Your task to perform on an android device: Open the calendar app, open the side menu, and click the "Day" option Image 0: 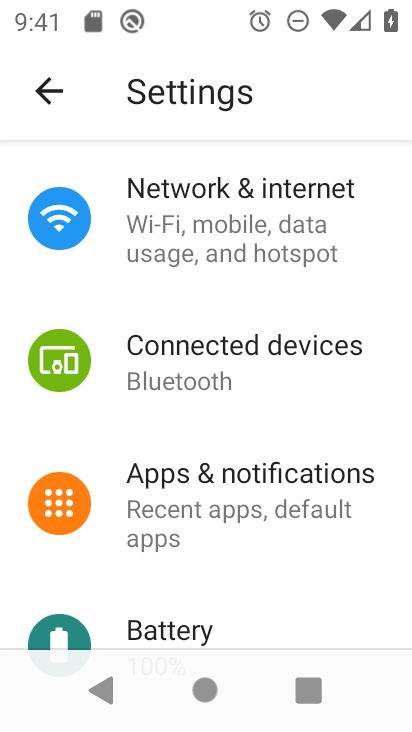
Step 0: press home button
Your task to perform on an android device: Open the calendar app, open the side menu, and click the "Day" option Image 1: 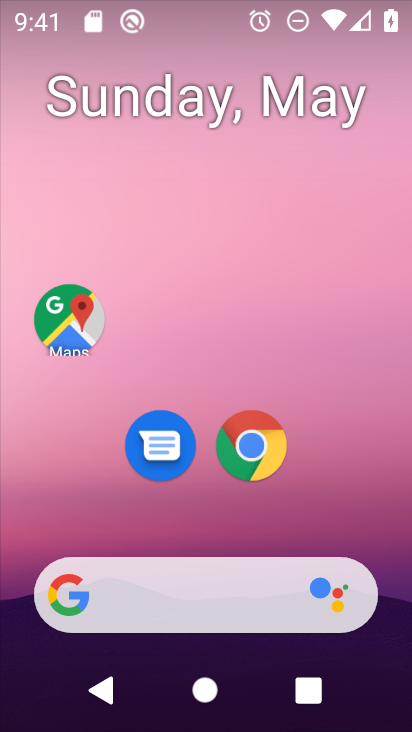
Step 1: drag from (209, 584) to (201, 340)
Your task to perform on an android device: Open the calendar app, open the side menu, and click the "Day" option Image 2: 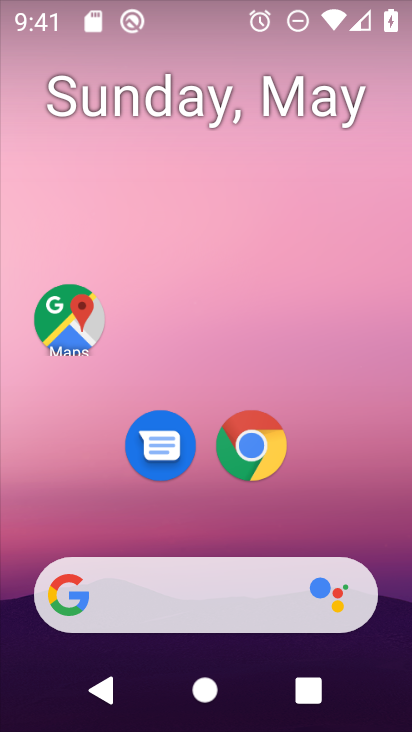
Step 2: drag from (183, 588) to (239, 317)
Your task to perform on an android device: Open the calendar app, open the side menu, and click the "Day" option Image 3: 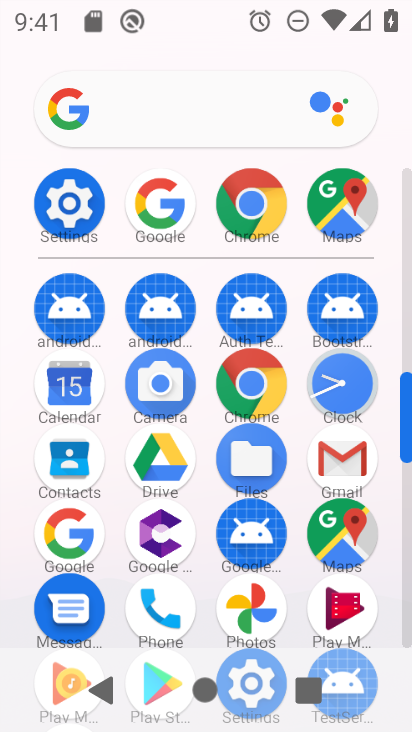
Step 3: click (70, 400)
Your task to perform on an android device: Open the calendar app, open the side menu, and click the "Day" option Image 4: 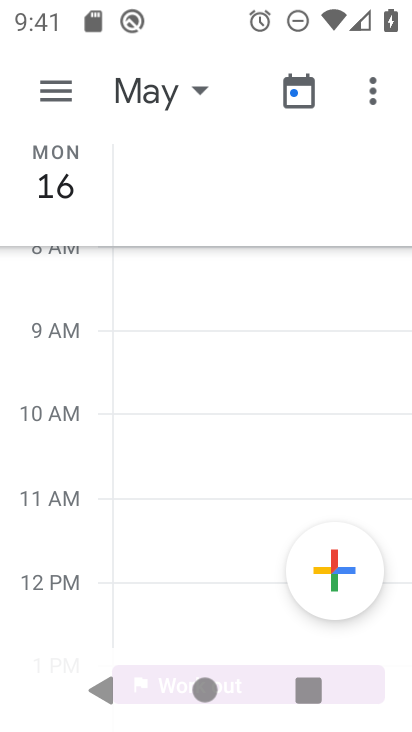
Step 4: click (64, 94)
Your task to perform on an android device: Open the calendar app, open the side menu, and click the "Day" option Image 5: 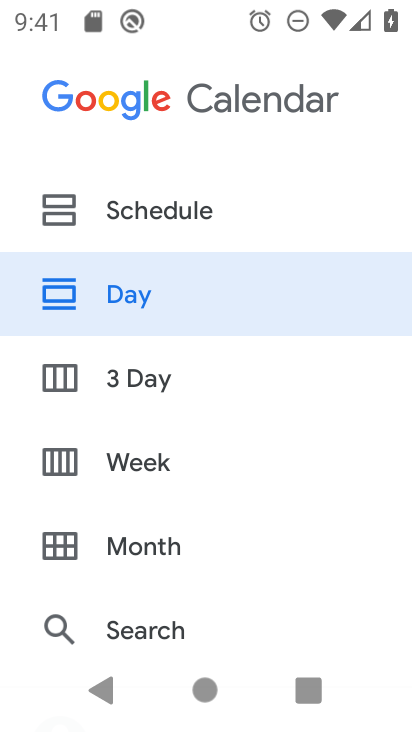
Step 5: click (161, 277)
Your task to perform on an android device: Open the calendar app, open the side menu, and click the "Day" option Image 6: 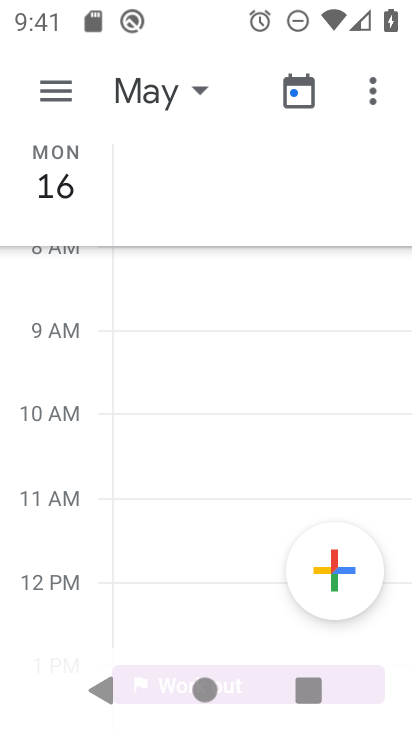
Step 6: task complete